Your task to perform on an android device: Open privacy settings Image 0: 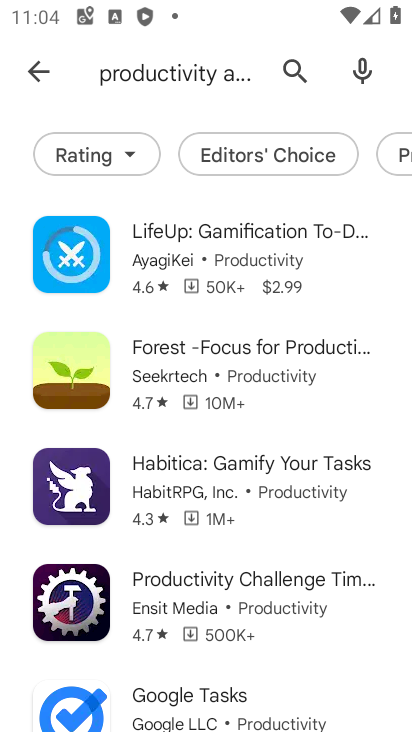
Step 0: press home button
Your task to perform on an android device: Open privacy settings Image 1: 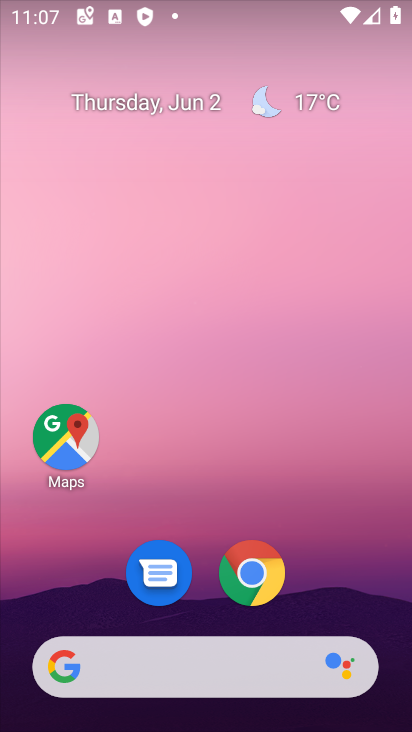
Step 1: drag from (335, 590) to (324, 27)
Your task to perform on an android device: Open privacy settings Image 2: 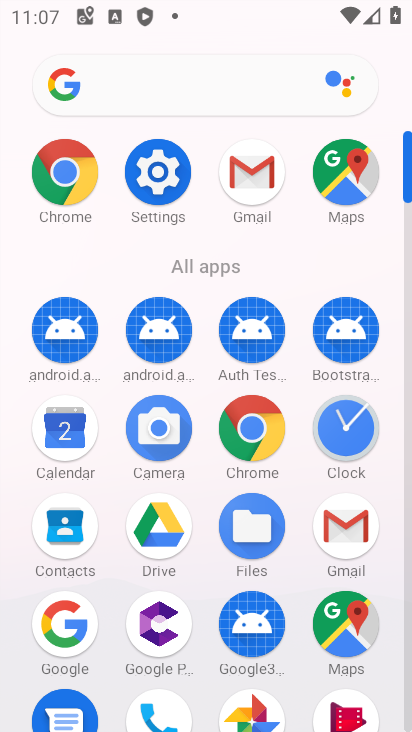
Step 2: click (144, 168)
Your task to perform on an android device: Open privacy settings Image 3: 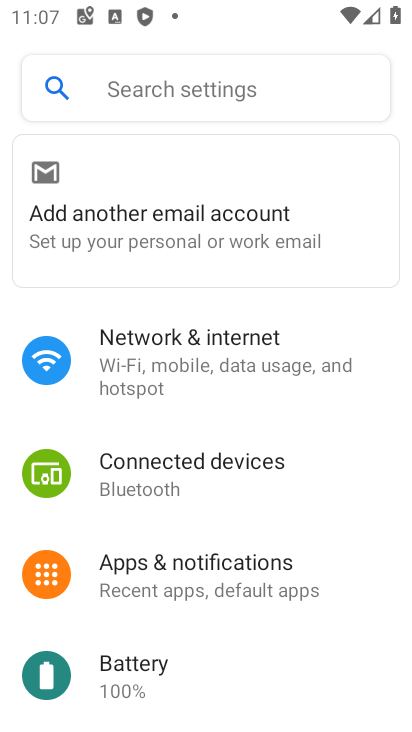
Step 3: drag from (188, 318) to (183, 187)
Your task to perform on an android device: Open privacy settings Image 4: 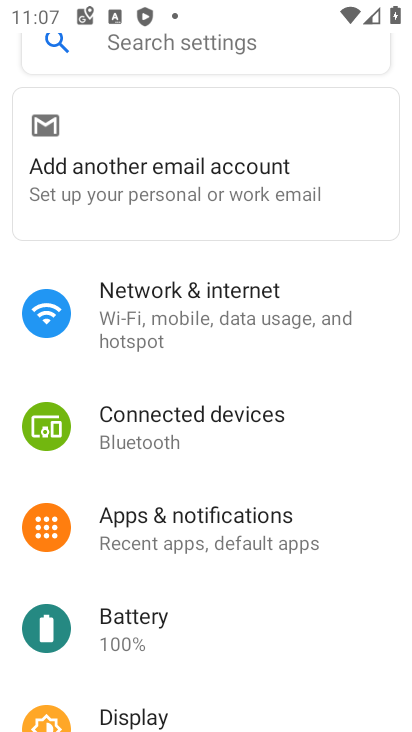
Step 4: drag from (181, 636) to (189, 198)
Your task to perform on an android device: Open privacy settings Image 5: 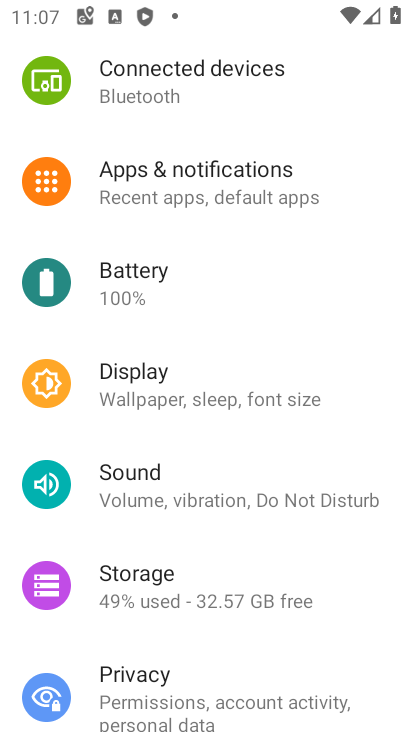
Step 5: click (158, 699)
Your task to perform on an android device: Open privacy settings Image 6: 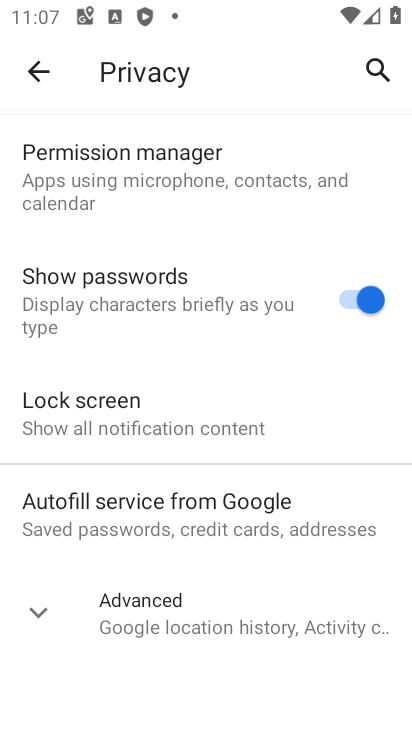
Step 6: task complete